Your task to perform on an android device: turn on wifi Image 0: 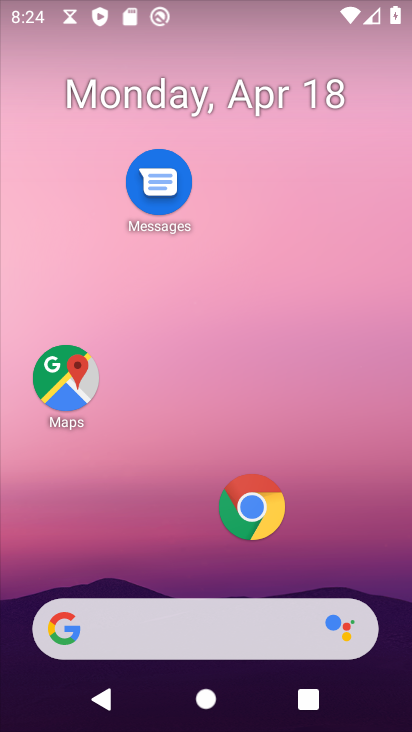
Step 0: click (185, 218)
Your task to perform on an android device: turn on wifi Image 1: 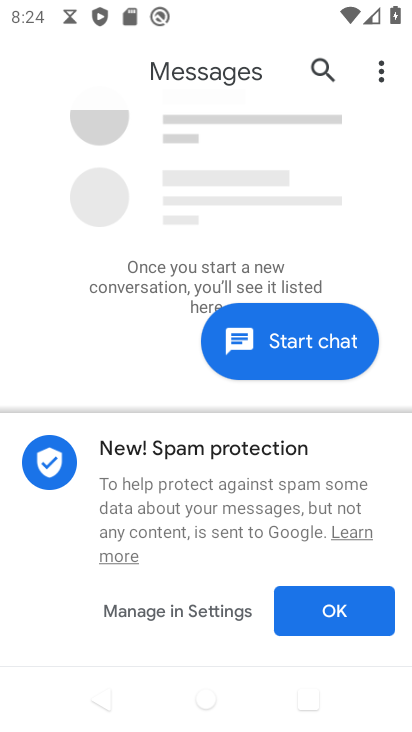
Step 1: press home button
Your task to perform on an android device: turn on wifi Image 2: 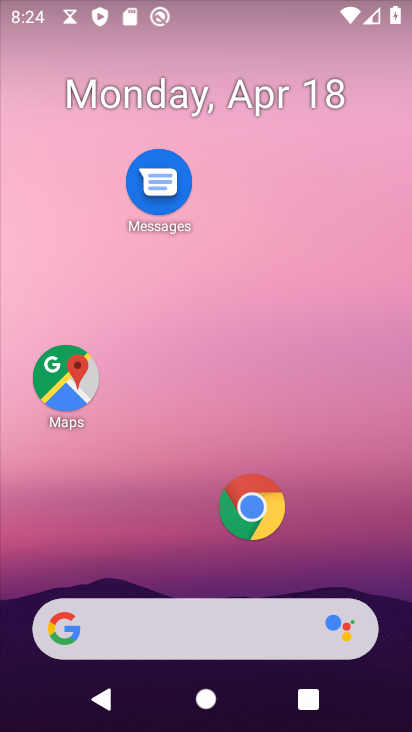
Step 2: drag from (207, 596) to (200, 193)
Your task to perform on an android device: turn on wifi Image 3: 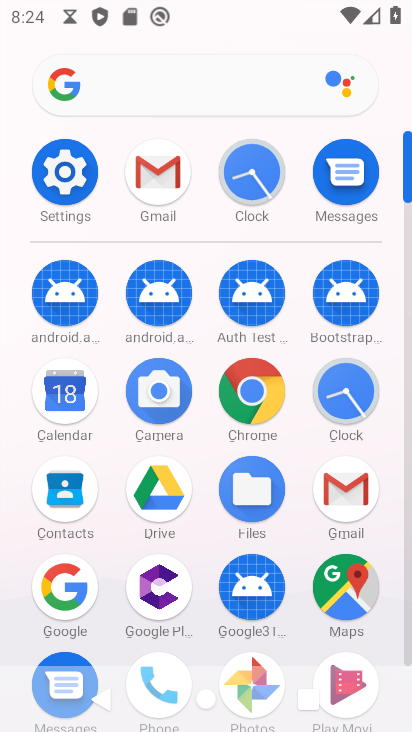
Step 3: click (58, 179)
Your task to perform on an android device: turn on wifi Image 4: 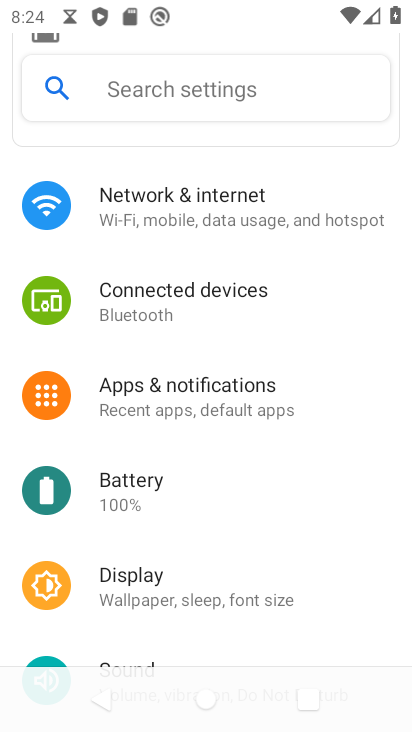
Step 4: click (216, 213)
Your task to perform on an android device: turn on wifi Image 5: 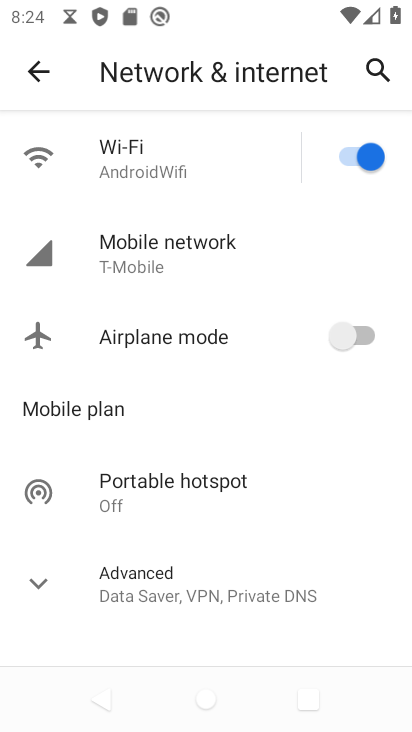
Step 5: task complete